Your task to perform on an android device: turn on improve location accuracy Image 0: 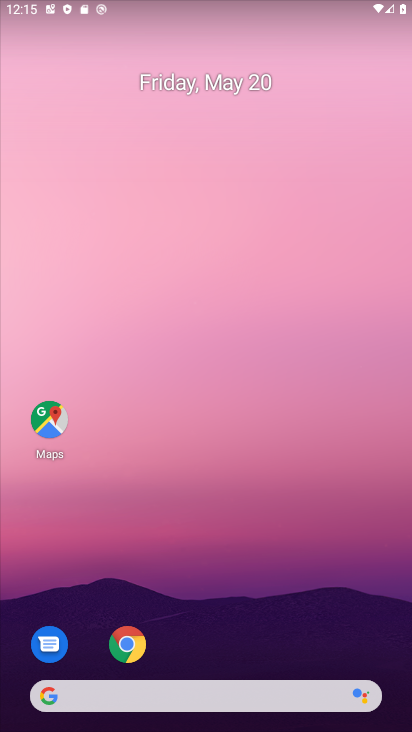
Step 0: drag from (291, 656) to (316, 17)
Your task to perform on an android device: turn on improve location accuracy Image 1: 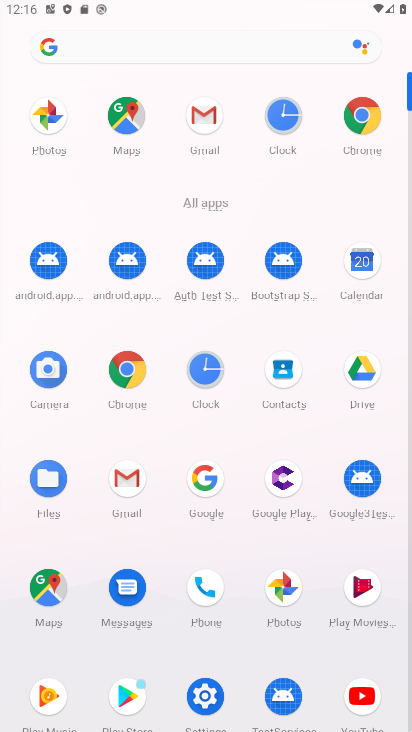
Step 1: click (203, 698)
Your task to perform on an android device: turn on improve location accuracy Image 2: 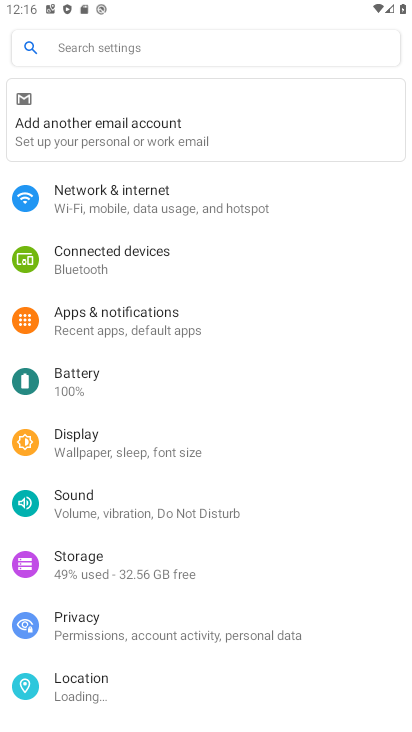
Step 2: click (91, 687)
Your task to perform on an android device: turn on improve location accuracy Image 3: 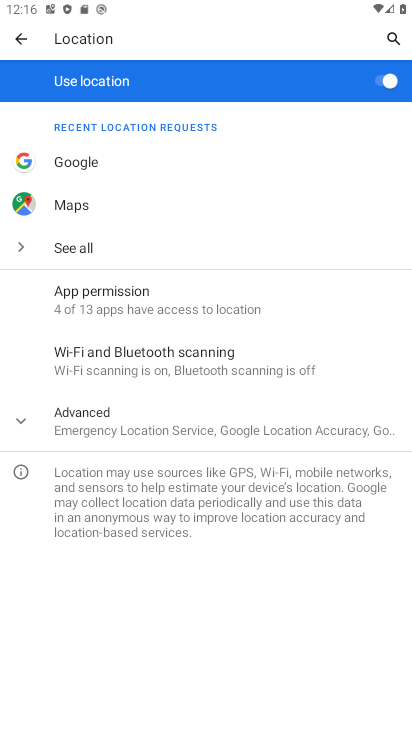
Step 3: click (8, 421)
Your task to perform on an android device: turn on improve location accuracy Image 4: 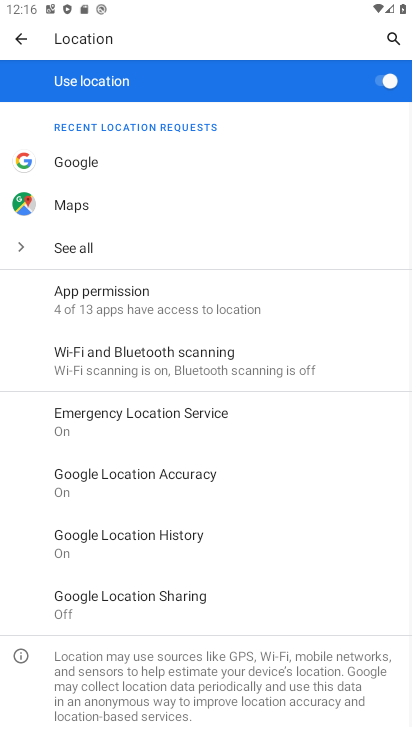
Step 4: click (133, 474)
Your task to perform on an android device: turn on improve location accuracy Image 5: 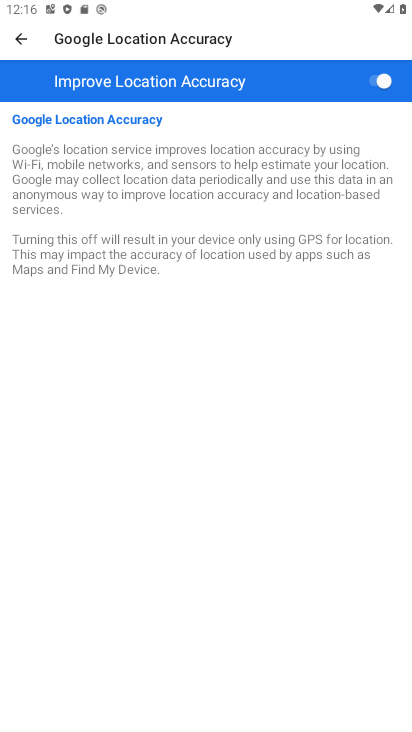
Step 5: task complete